Your task to perform on an android device: turn on notifications settings in the gmail app Image 0: 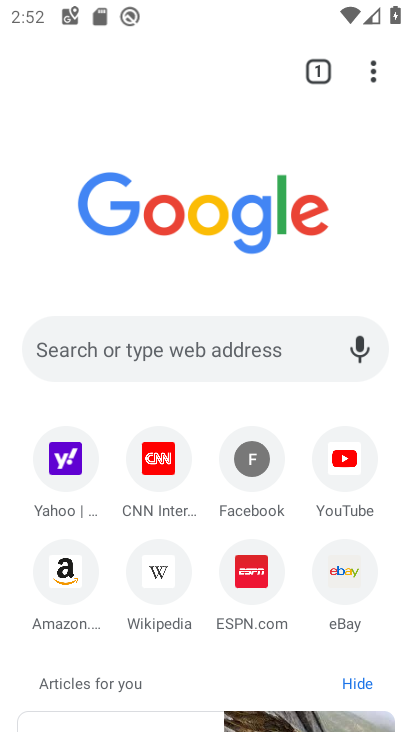
Step 0: press home button
Your task to perform on an android device: turn on notifications settings in the gmail app Image 1: 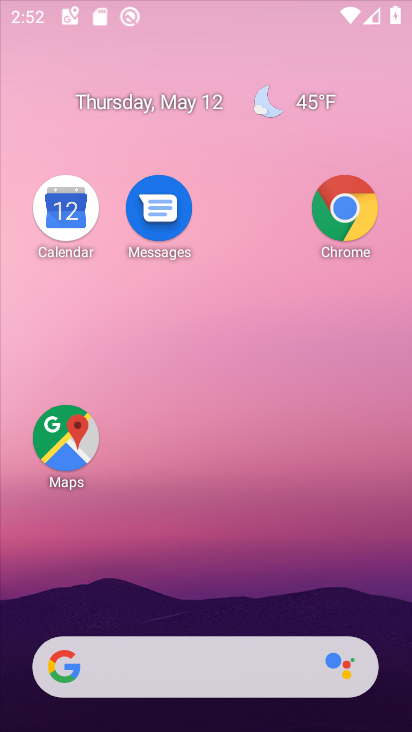
Step 1: drag from (208, 661) to (266, 470)
Your task to perform on an android device: turn on notifications settings in the gmail app Image 2: 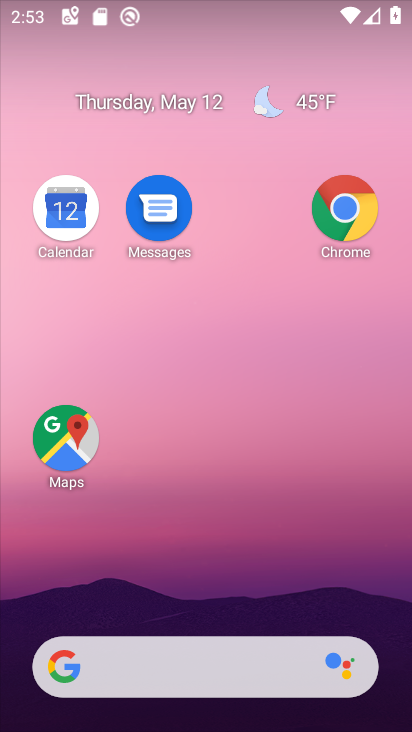
Step 2: drag from (208, 526) to (256, 382)
Your task to perform on an android device: turn on notifications settings in the gmail app Image 3: 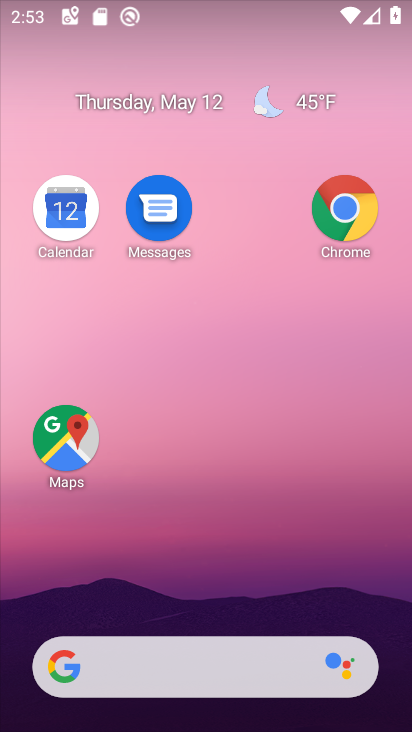
Step 3: drag from (180, 569) to (212, 367)
Your task to perform on an android device: turn on notifications settings in the gmail app Image 4: 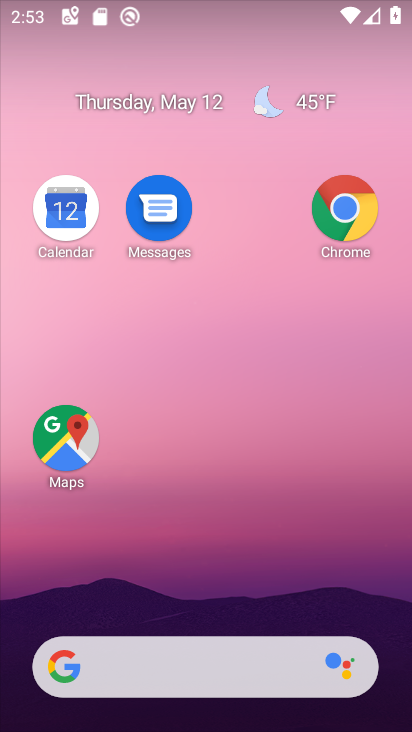
Step 4: drag from (145, 606) to (276, 220)
Your task to perform on an android device: turn on notifications settings in the gmail app Image 5: 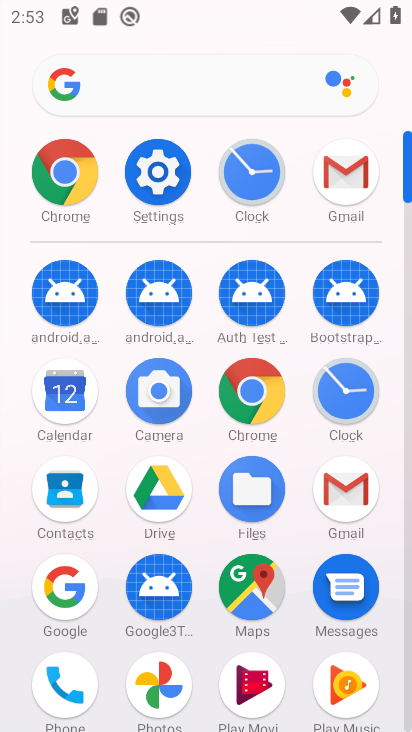
Step 5: click (353, 195)
Your task to perform on an android device: turn on notifications settings in the gmail app Image 6: 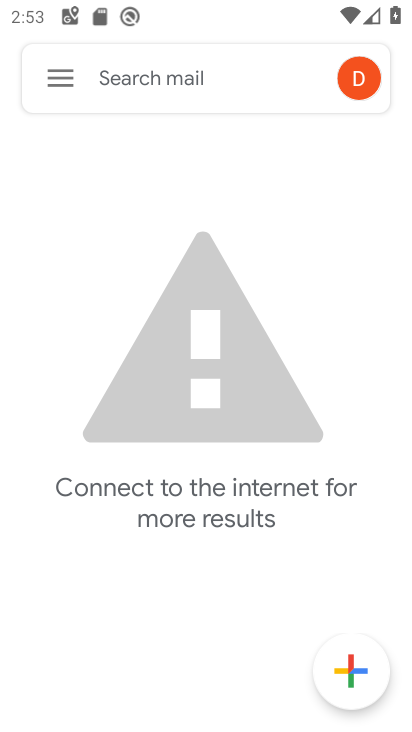
Step 6: drag from (237, 605) to (248, 242)
Your task to perform on an android device: turn on notifications settings in the gmail app Image 7: 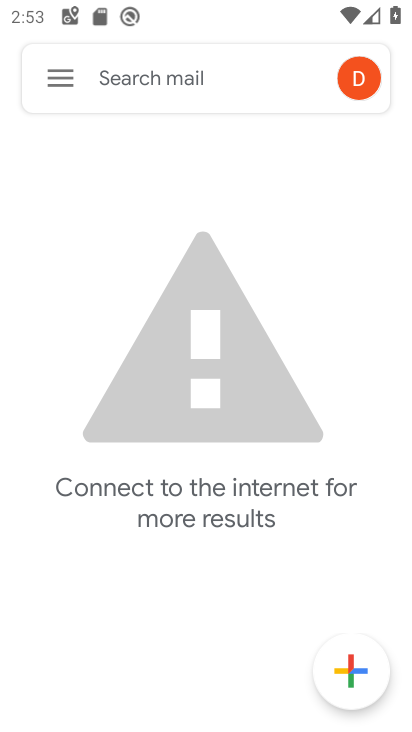
Step 7: click (73, 97)
Your task to perform on an android device: turn on notifications settings in the gmail app Image 8: 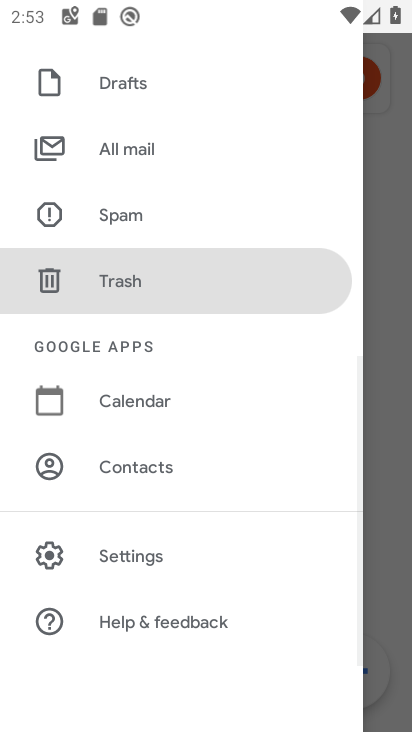
Step 8: click (134, 558)
Your task to perform on an android device: turn on notifications settings in the gmail app Image 9: 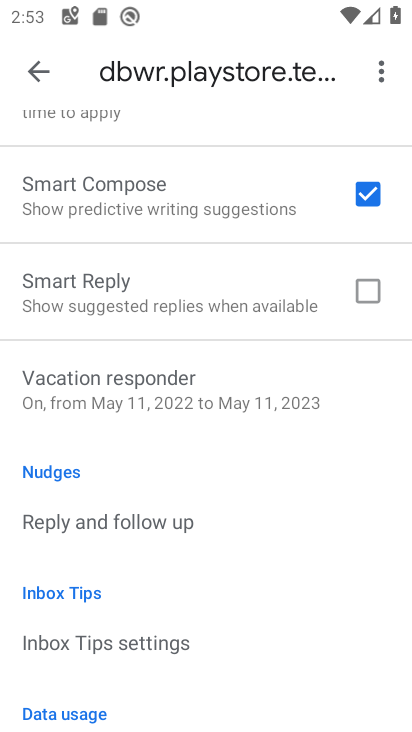
Step 9: drag from (247, 663) to (267, 402)
Your task to perform on an android device: turn on notifications settings in the gmail app Image 10: 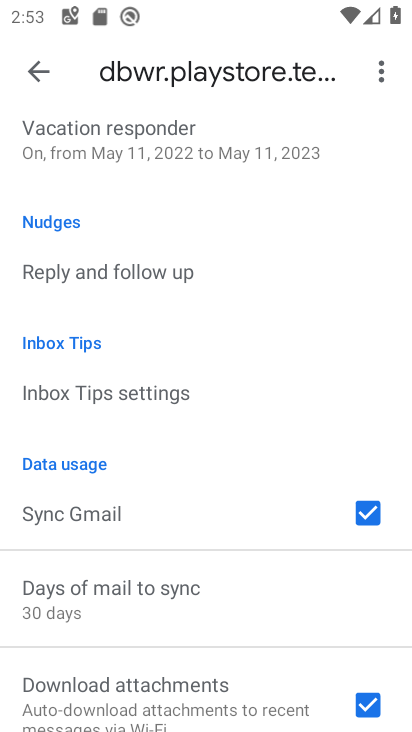
Step 10: drag from (201, 148) to (284, 712)
Your task to perform on an android device: turn on notifications settings in the gmail app Image 11: 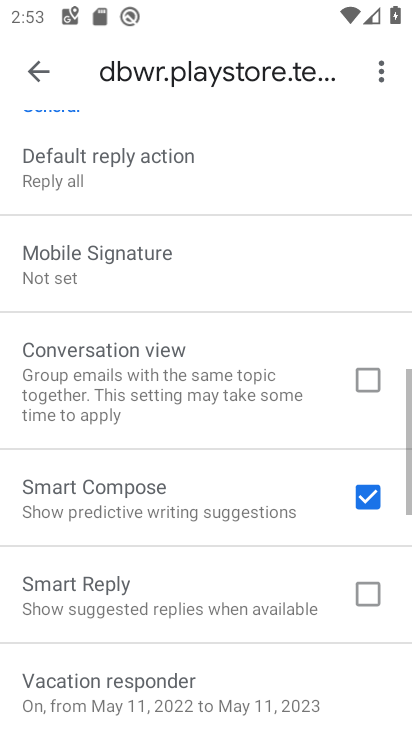
Step 11: drag from (144, 178) to (354, 657)
Your task to perform on an android device: turn on notifications settings in the gmail app Image 12: 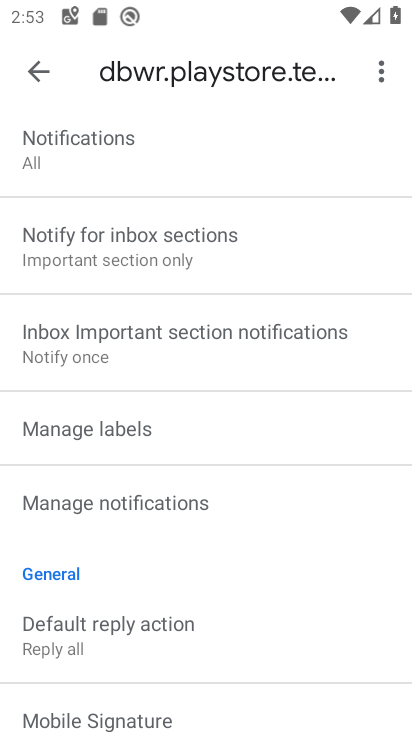
Step 12: click (152, 511)
Your task to perform on an android device: turn on notifications settings in the gmail app Image 13: 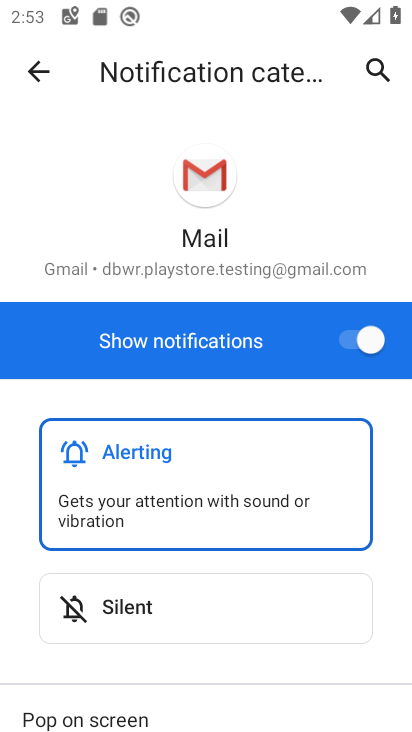
Step 13: task complete